Your task to perform on an android device: Show me popular games on the Play Store Image 0: 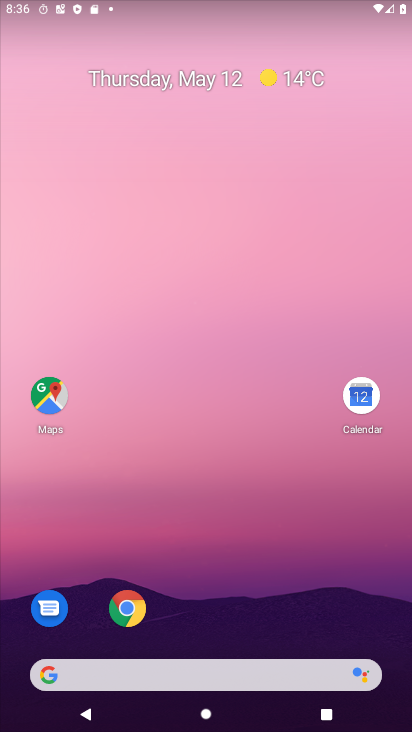
Step 0: drag from (271, 527) to (328, 325)
Your task to perform on an android device: Show me popular games on the Play Store Image 1: 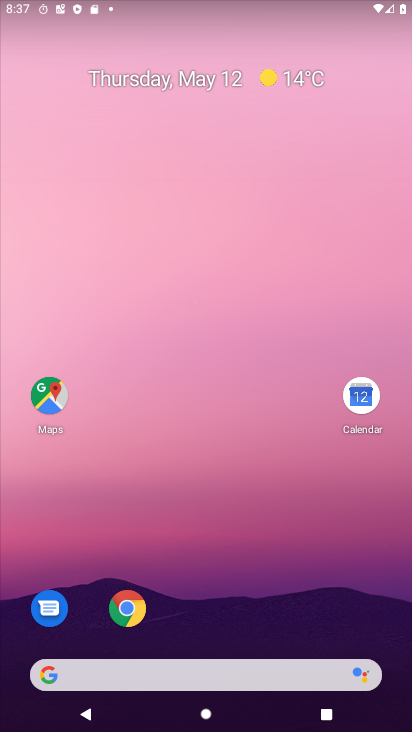
Step 1: drag from (317, 445) to (351, 164)
Your task to perform on an android device: Show me popular games on the Play Store Image 2: 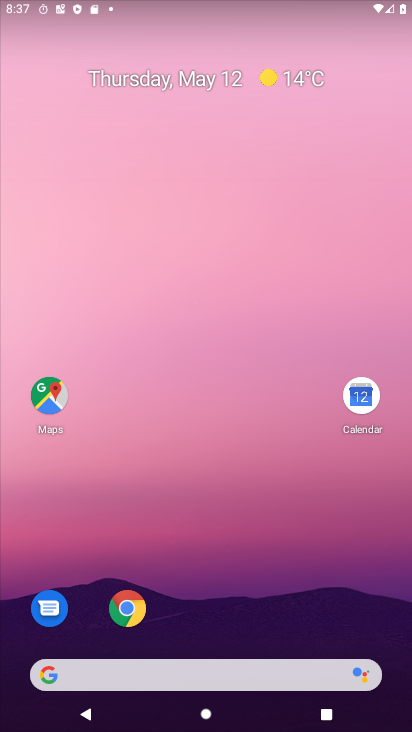
Step 2: drag from (203, 587) to (255, 41)
Your task to perform on an android device: Show me popular games on the Play Store Image 3: 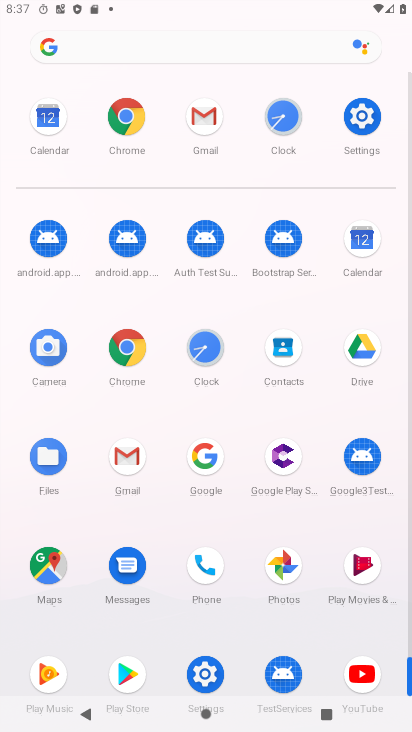
Step 3: drag from (174, 609) to (392, 288)
Your task to perform on an android device: Show me popular games on the Play Store Image 4: 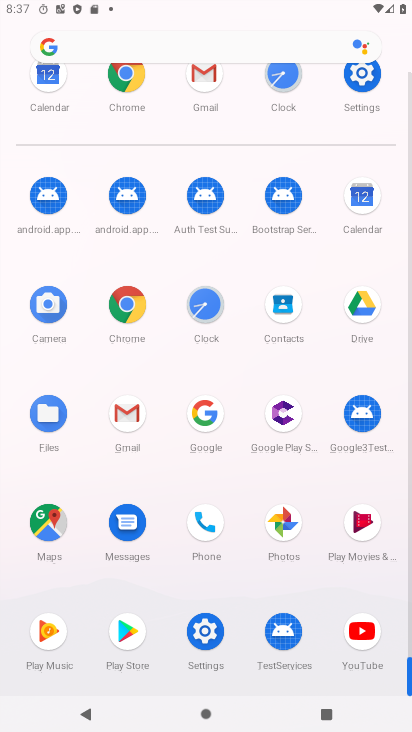
Step 4: click (134, 638)
Your task to perform on an android device: Show me popular games on the Play Store Image 5: 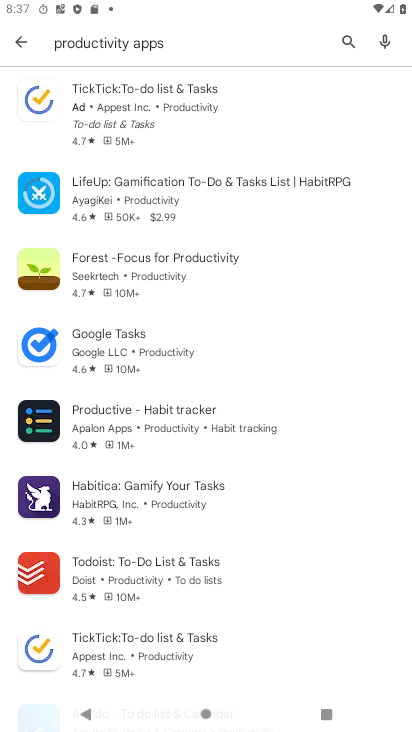
Step 5: click (342, 36)
Your task to perform on an android device: Show me popular games on the Play Store Image 6: 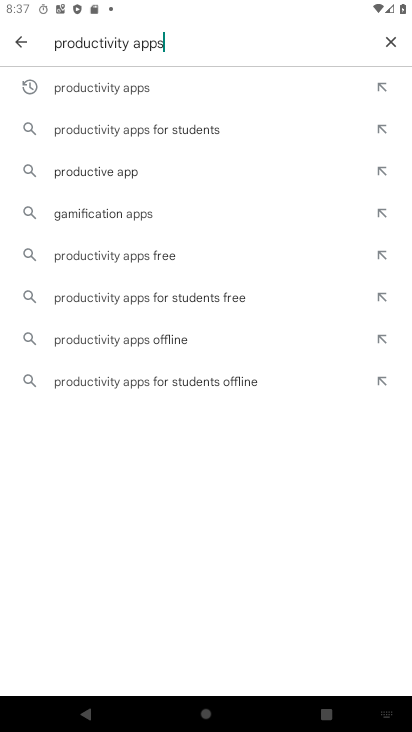
Step 6: click (390, 42)
Your task to perform on an android device: Show me popular games on the Play Store Image 7: 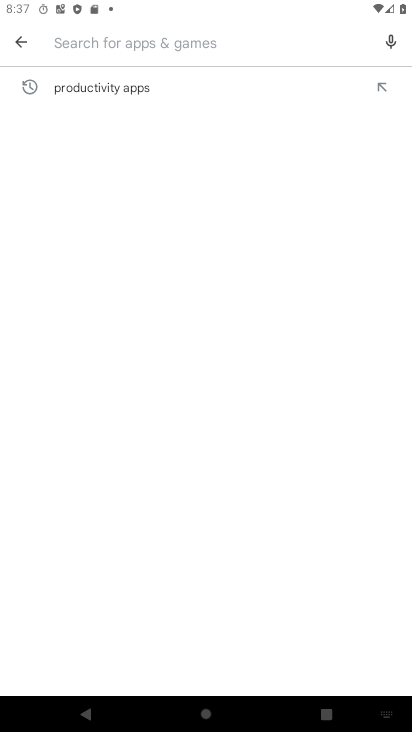
Step 7: type "popular game"
Your task to perform on an android device: Show me popular games on the Play Store Image 8: 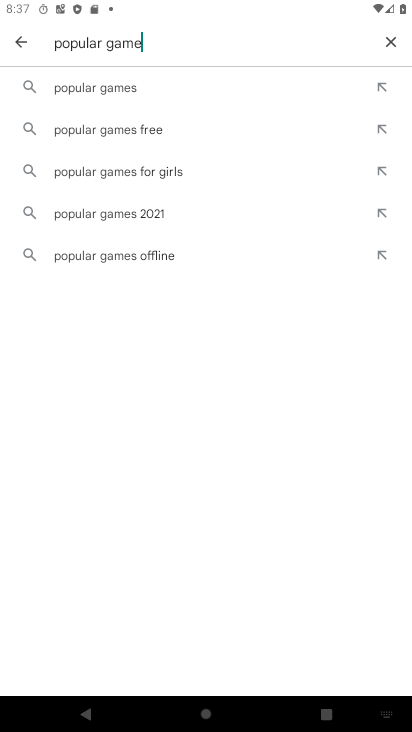
Step 8: click (157, 75)
Your task to perform on an android device: Show me popular games on the Play Store Image 9: 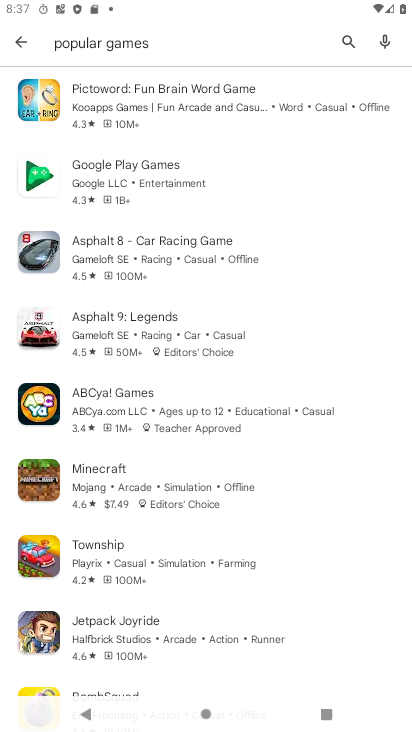
Step 9: task complete